Your task to perform on an android device: Show me popular games on the Play Store Image 0: 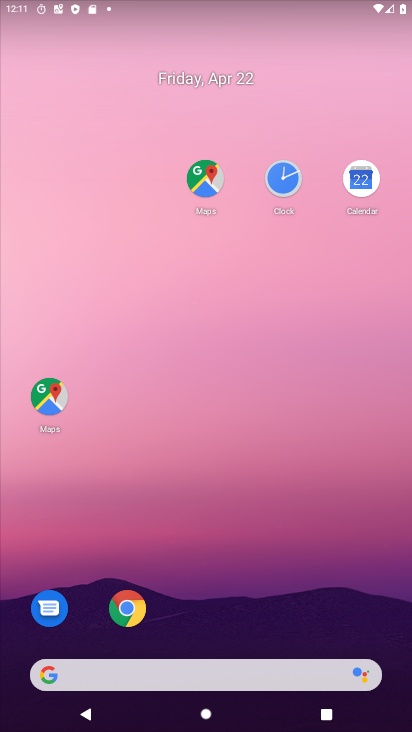
Step 0: drag from (276, 390) to (276, 111)
Your task to perform on an android device: Show me popular games on the Play Store Image 1: 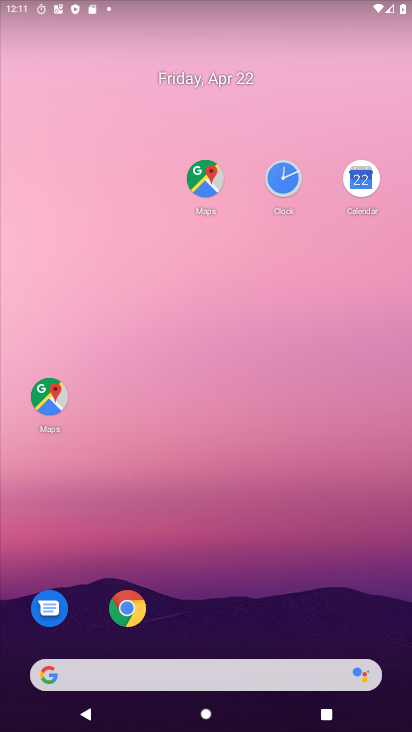
Step 1: drag from (257, 657) to (268, 9)
Your task to perform on an android device: Show me popular games on the Play Store Image 2: 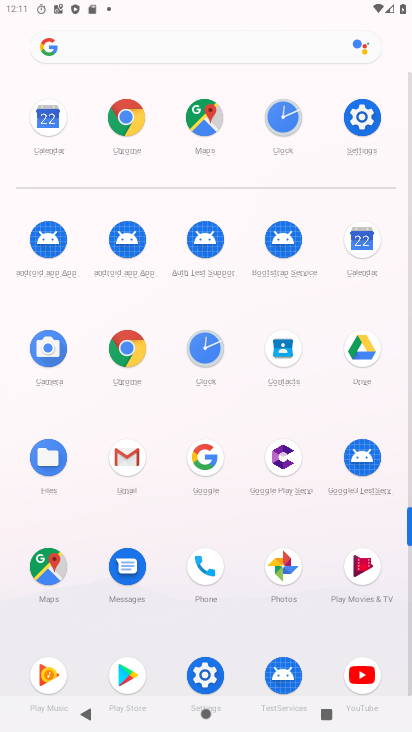
Step 2: drag from (251, 293) to (239, 198)
Your task to perform on an android device: Show me popular games on the Play Store Image 3: 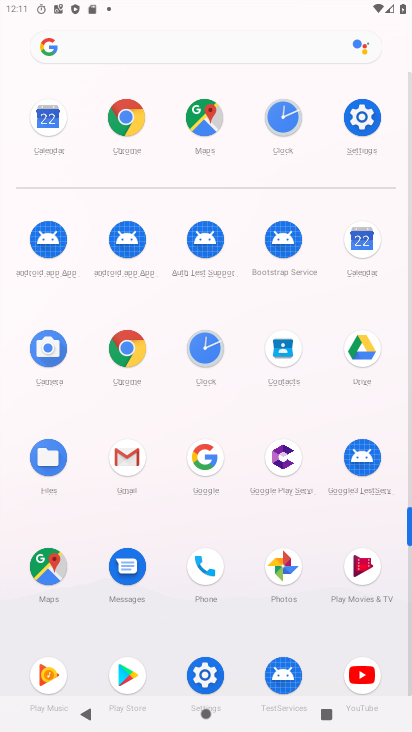
Step 3: drag from (251, 559) to (222, 192)
Your task to perform on an android device: Show me popular games on the Play Store Image 4: 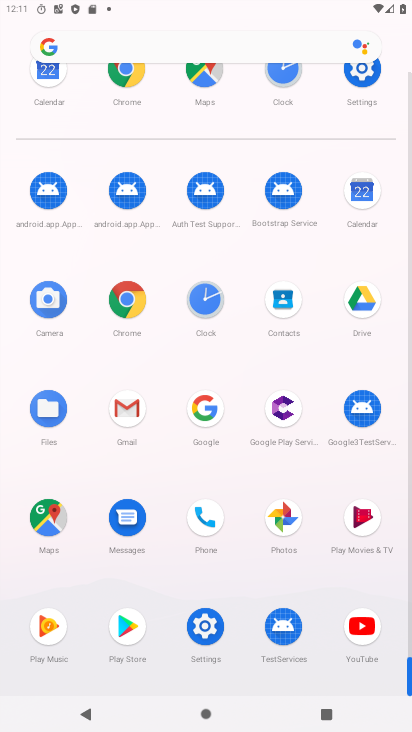
Step 4: drag from (232, 326) to (213, 139)
Your task to perform on an android device: Show me popular games on the Play Store Image 5: 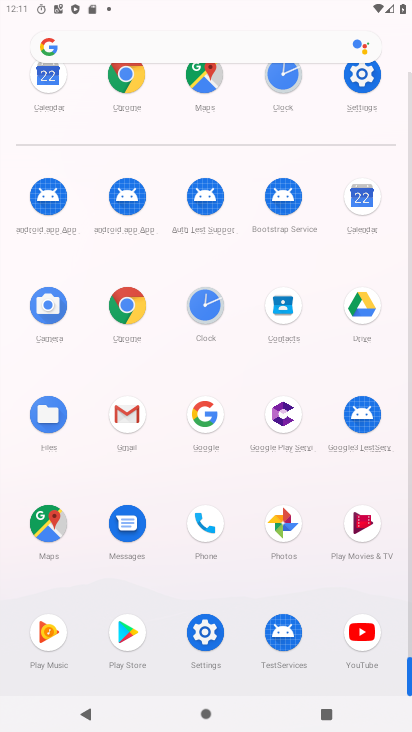
Step 5: drag from (280, 479) to (253, 176)
Your task to perform on an android device: Show me popular games on the Play Store Image 6: 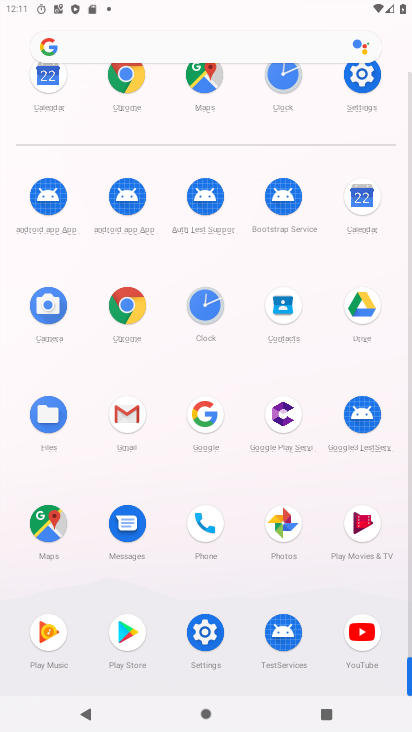
Step 6: click (124, 638)
Your task to perform on an android device: Show me popular games on the Play Store Image 7: 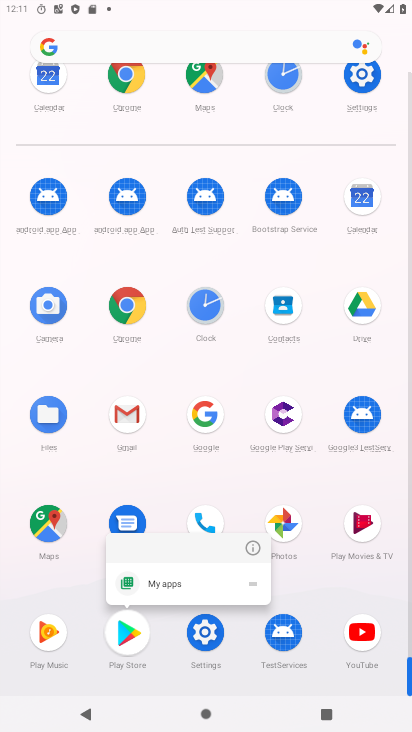
Step 7: click (124, 637)
Your task to perform on an android device: Show me popular games on the Play Store Image 8: 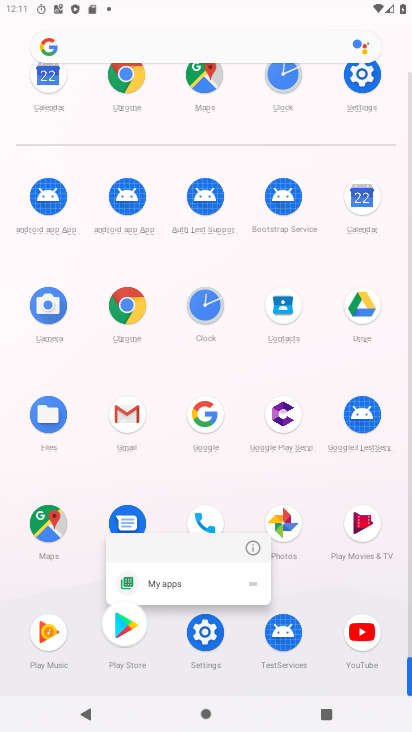
Step 8: click (121, 627)
Your task to perform on an android device: Show me popular games on the Play Store Image 9: 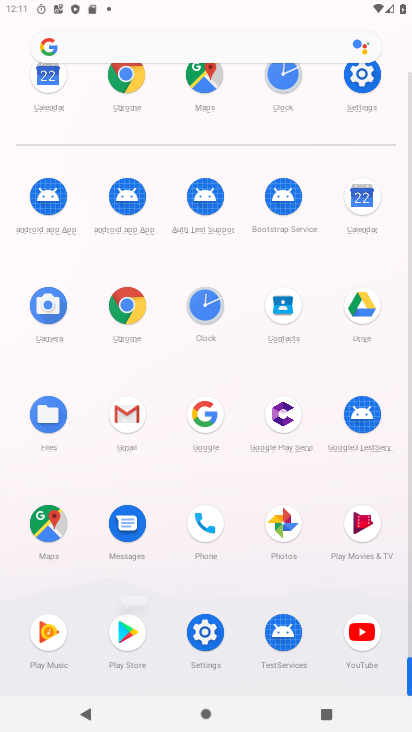
Step 9: click (121, 624)
Your task to perform on an android device: Show me popular games on the Play Store Image 10: 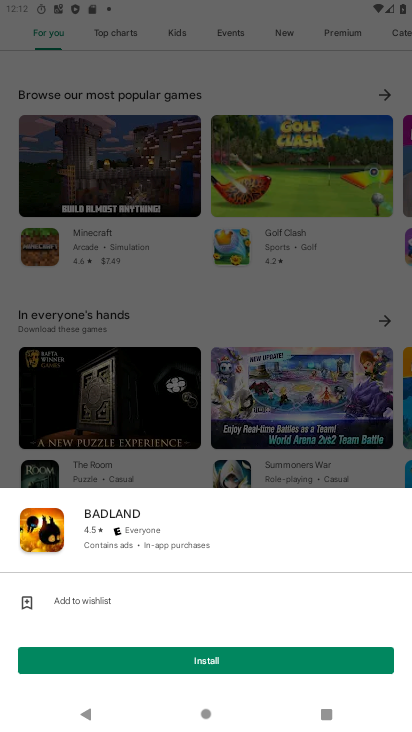
Step 10: drag from (186, 358) to (89, 121)
Your task to perform on an android device: Show me popular games on the Play Store Image 11: 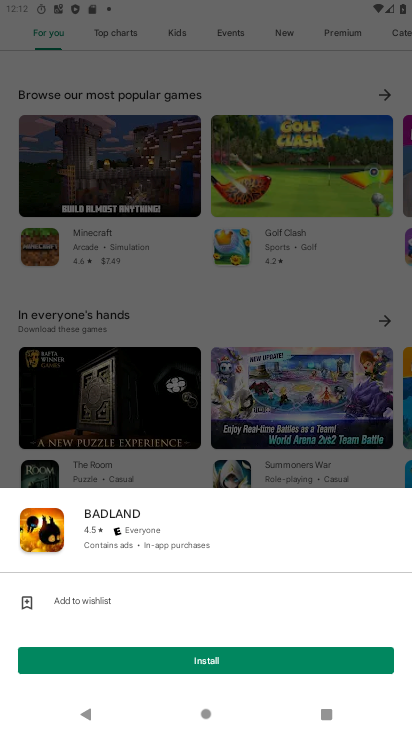
Step 11: drag from (120, 158) to (245, 81)
Your task to perform on an android device: Show me popular games on the Play Store Image 12: 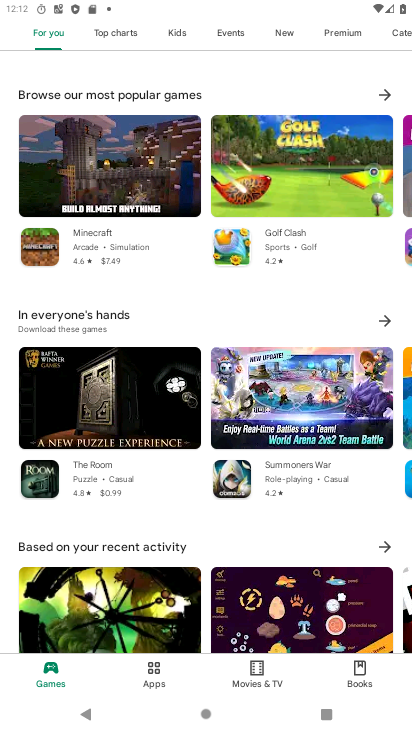
Step 12: click (232, 116)
Your task to perform on an android device: Show me popular games on the Play Store Image 13: 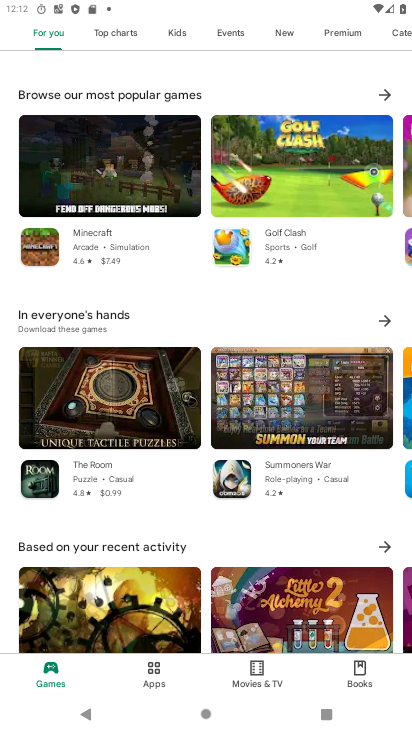
Step 13: drag from (318, 165) to (320, 93)
Your task to perform on an android device: Show me popular games on the Play Store Image 14: 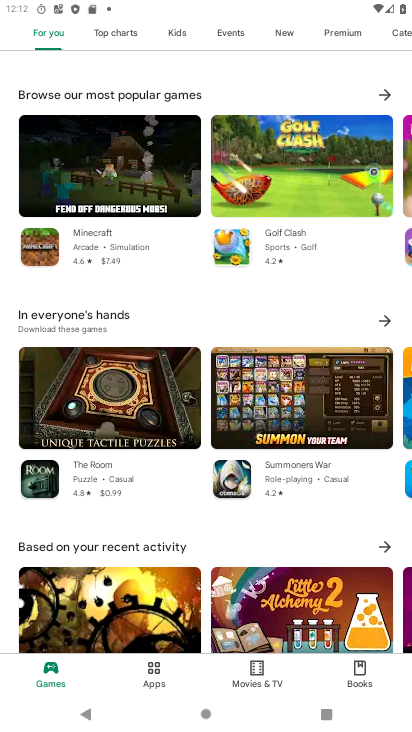
Step 14: drag from (106, 348) to (182, 542)
Your task to perform on an android device: Show me popular games on the Play Store Image 15: 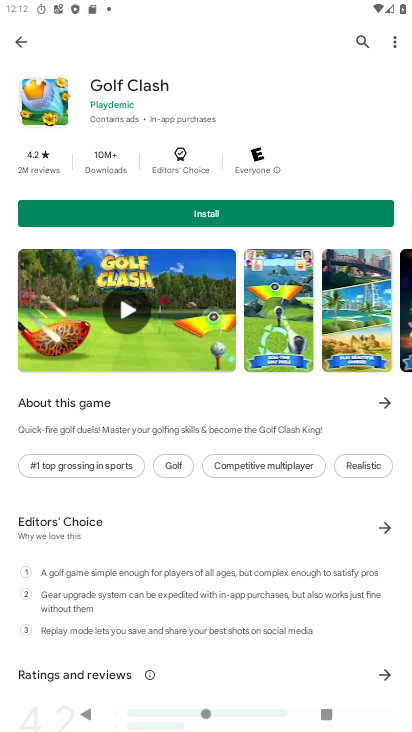
Step 15: drag from (185, 271) to (207, 116)
Your task to perform on an android device: Show me popular games on the Play Store Image 16: 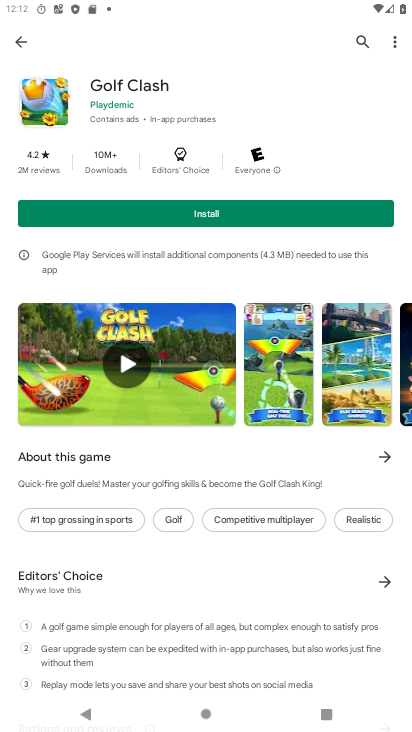
Step 16: drag from (206, 153) to (190, 200)
Your task to perform on an android device: Show me popular games on the Play Store Image 17: 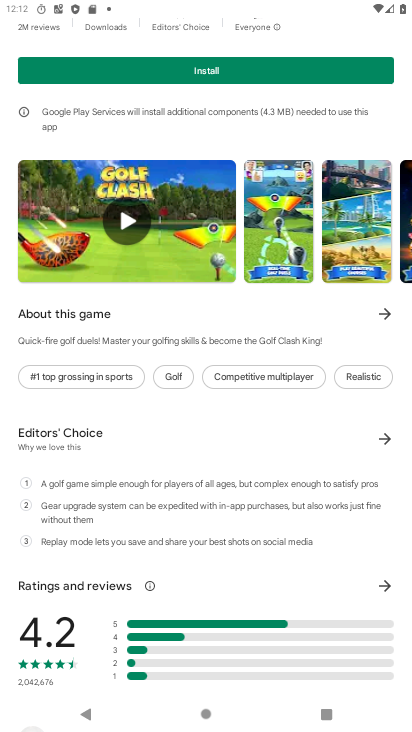
Step 17: drag from (158, 363) to (158, 318)
Your task to perform on an android device: Show me popular games on the Play Store Image 18: 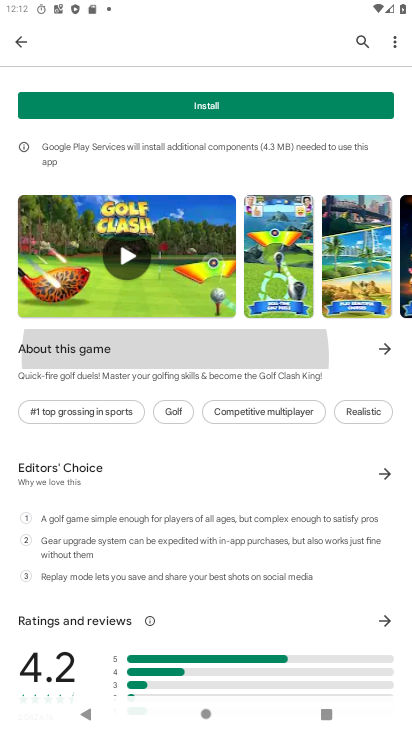
Step 18: drag from (177, 245) to (254, 180)
Your task to perform on an android device: Show me popular games on the Play Store Image 19: 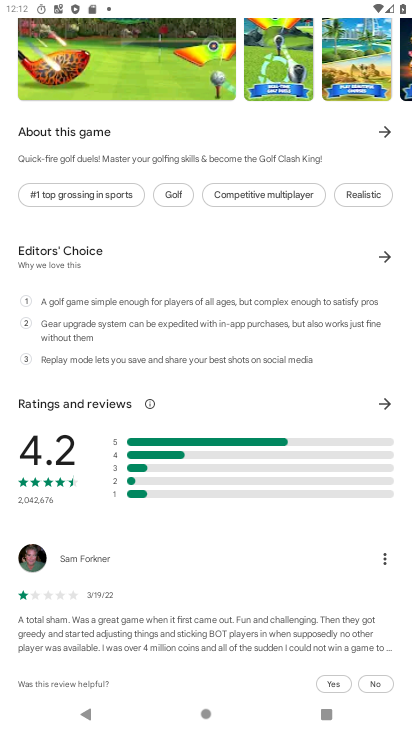
Step 19: drag from (130, 298) to (154, 124)
Your task to perform on an android device: Show me popular games on the Play Store Image 20: 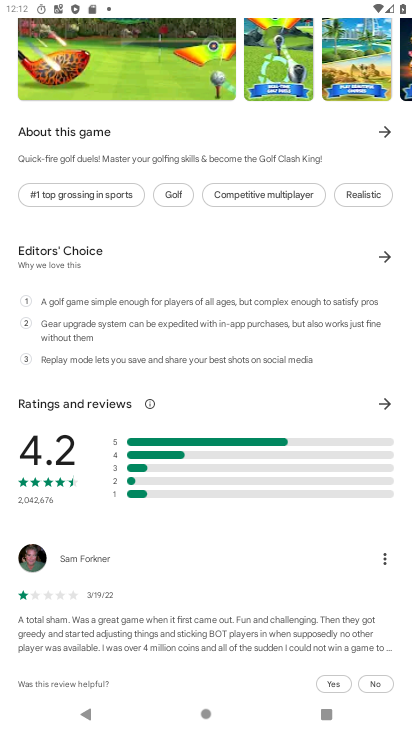
Step 20: drag from (189, 340) to (189, 183)
Your task to perform on an android device: Show me popular games on the Play Store Image 21: 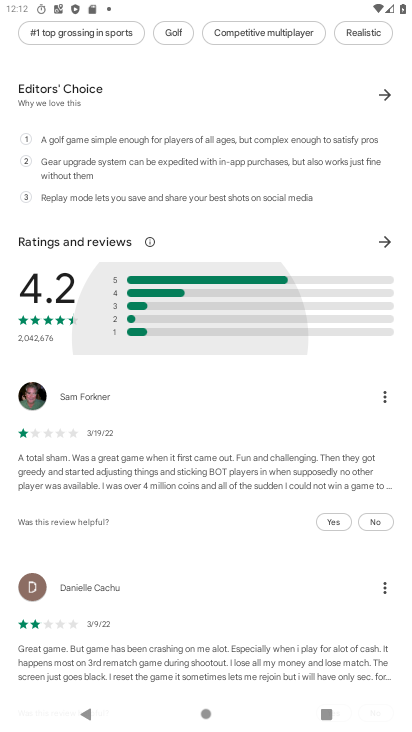
Step 21: drag from (193, 485) to (154, 134)
Your task to perform on an android device: Show me popular games on the Play Store Image 22: 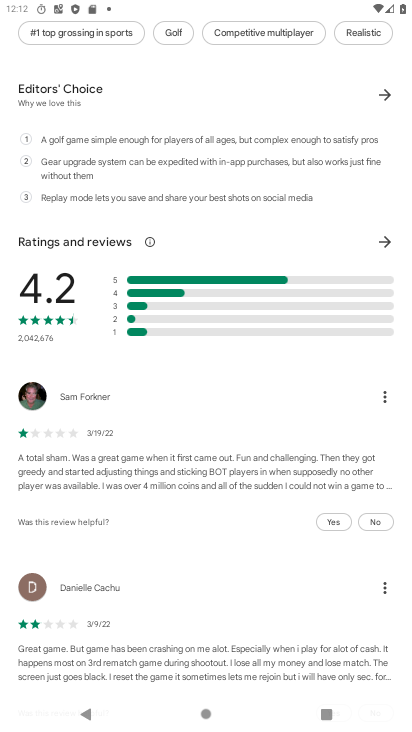
Step 22: drag from (196, 278) to (177, 94)
Your task to perform on an android device: Show me popular games on the Play Store Image 23: 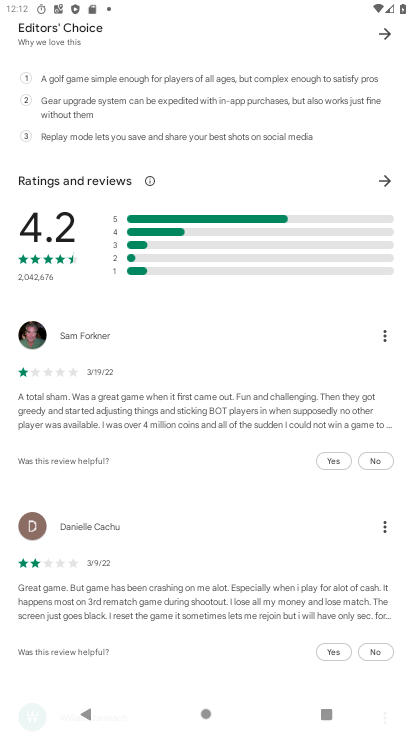
Step 23: drag from (169, 411) to (134, 224)
Your task to perform on an android device: Show me popular games on the Play Store Image 24: 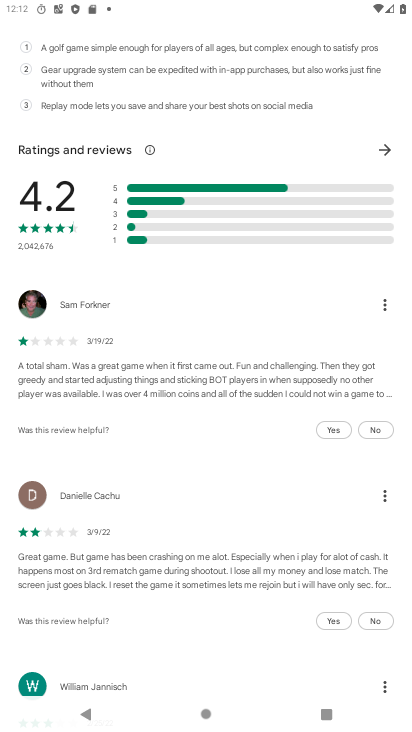
Step 24: drag from (301, 551) to (240, 350)
Your task to perform on an android device: Show me popular games on the Play Store Image 25: 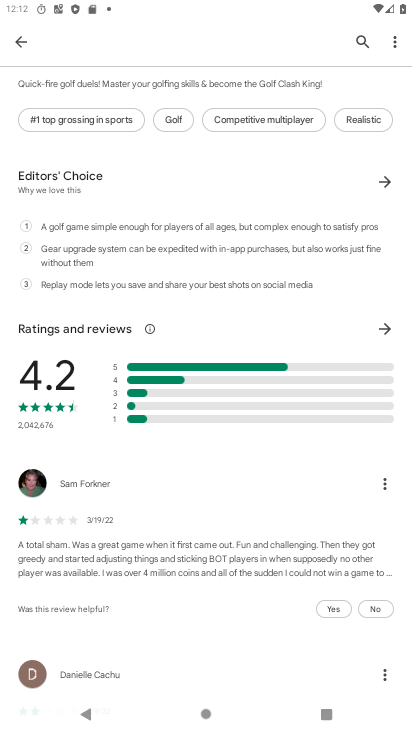
Step 25: drag from (250, 546) to (259, 166)
Your task to perform on an android device: Show me popular games on the Play Store Image 26: 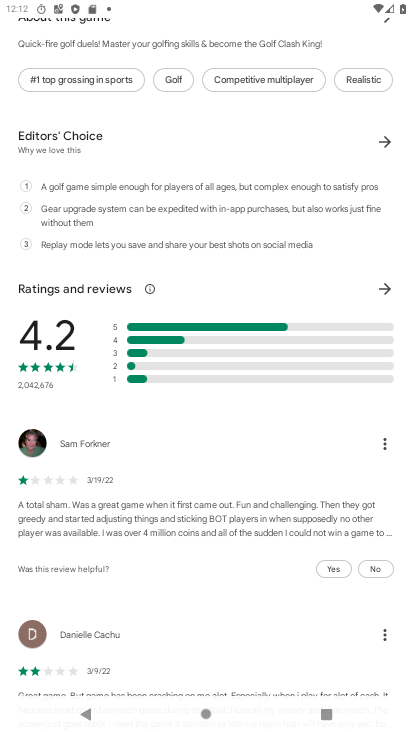
Step 26: click (375, 239)
Your task to perform on an android device: Show me popular games on the Play Store Image 27: 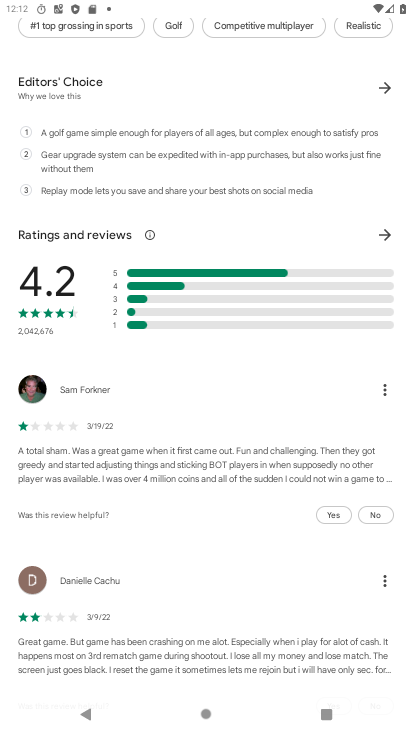
Step 27: task complete